Your task to perform on an android device: clear history in the chrome app Image 0: 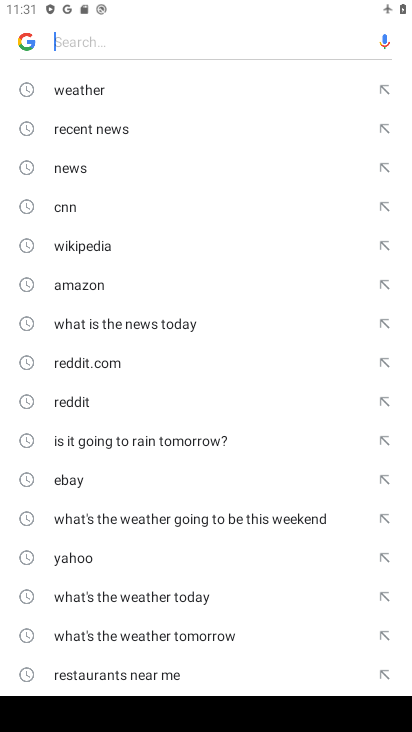
Step 0: press home button
Your task to perform on an android device: clear history in the chrome app Image 1: 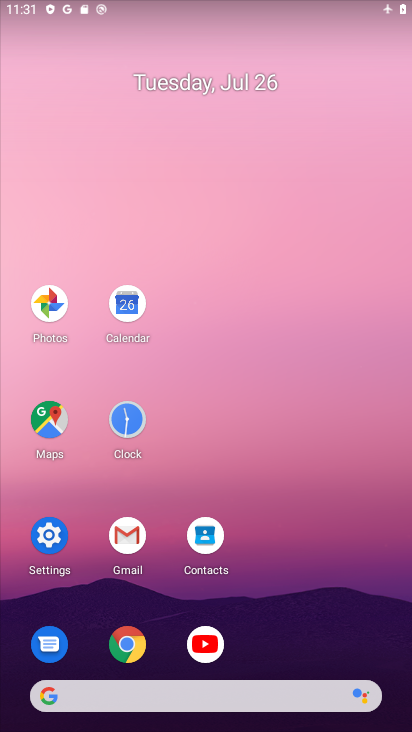
Step 1: click (124, 642)
Your task to perform on an android device: clear history in the chrome app Image 2: 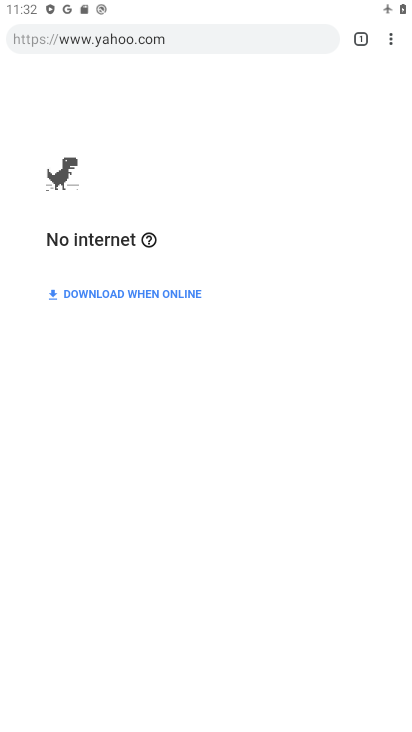
Step 2: click (391, 35)
Your task to perform on an android device: clear history in the chrome app Image 3: 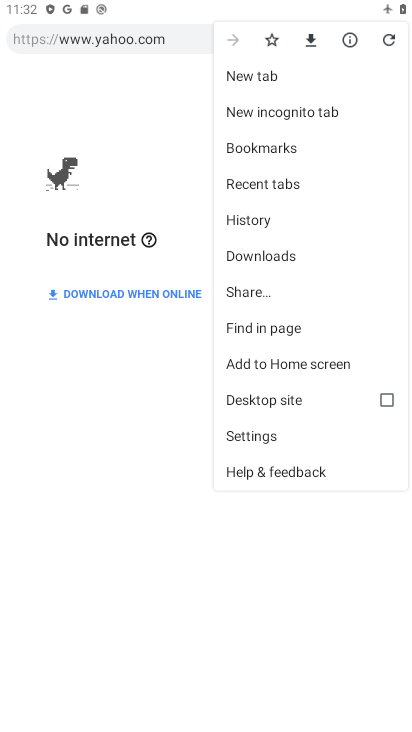
Step 3: click (250, 213)
Your task to perform on an android device: clear history in the chrome app Image 4: 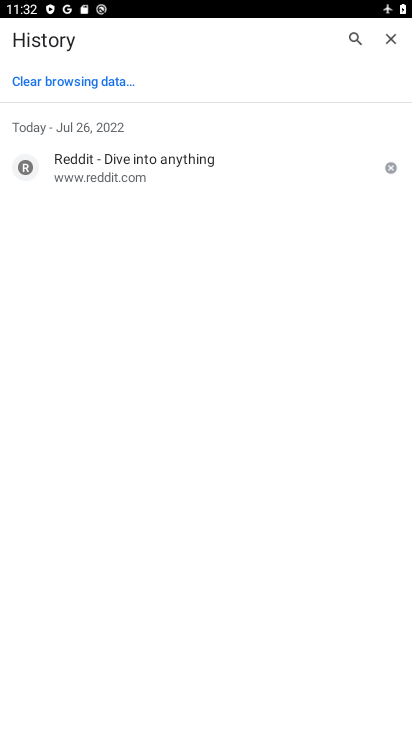
Step 4: click (65, 79)
Your task to perform on an android device: clear history in the chrome app Image 5: 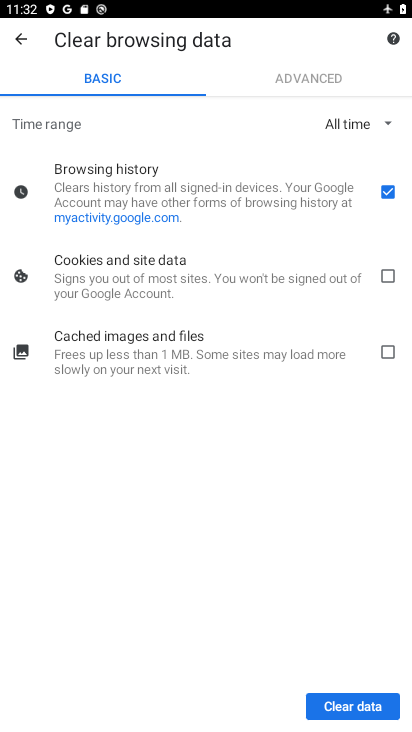
Step 5: click (352, 711)
Your task to perform on an android device: clear history in the chrome app Image 6: 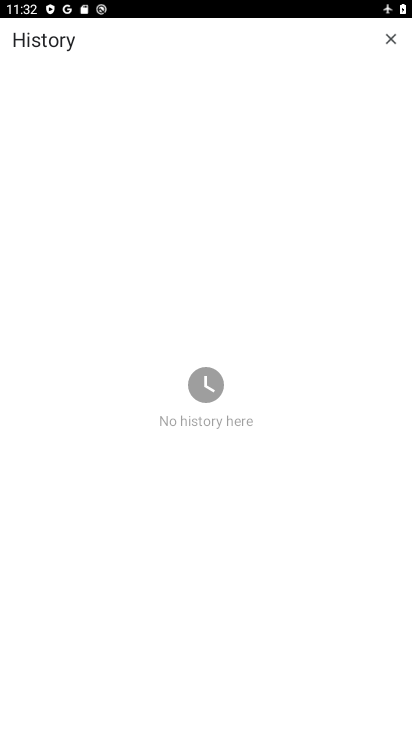
Step 6: task complete